Your task to perform on an android device: open a bookmark in the chrome app Image 0: 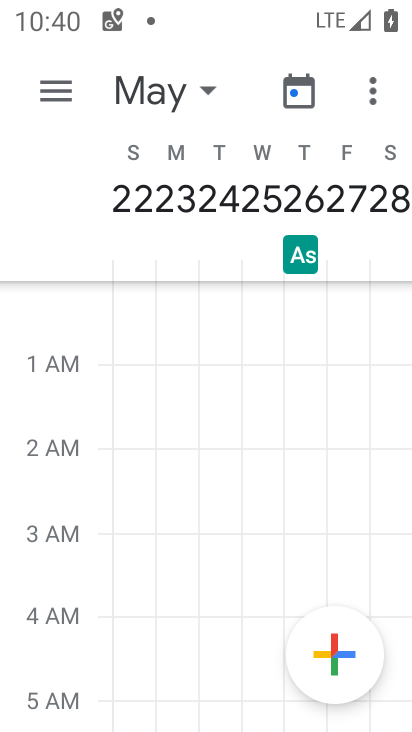
Step 0: press home button
Your task to perform on an android device: open a bookmark in the chrome app Image 1: 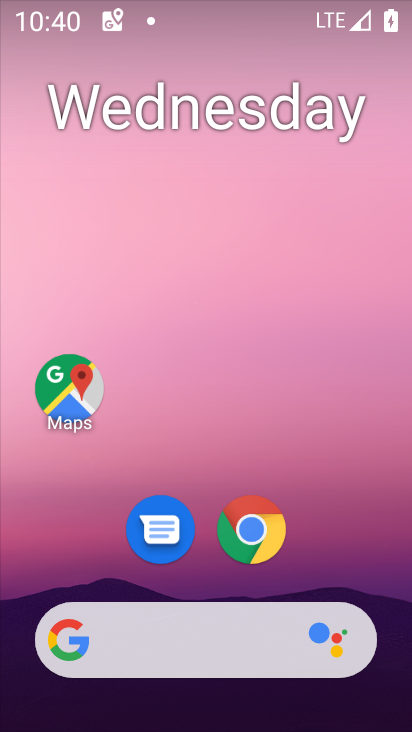
Step 1: click (257, 529)
Your task to perform on an android device: open a bookmark in the chrome app Image 2: 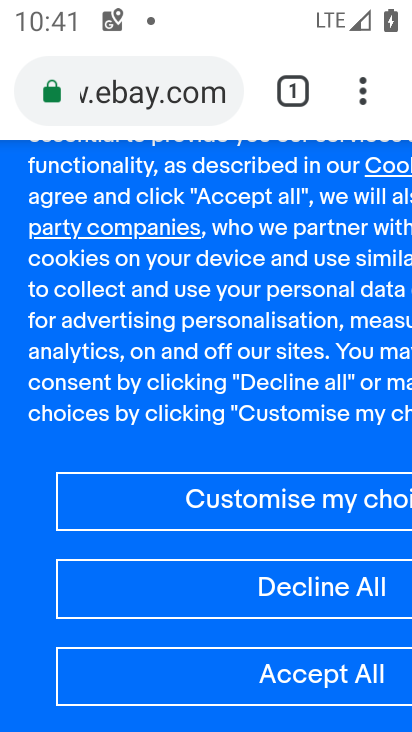
Step 2: click (363, 94)
Your task to perform on an android device: open a bookmark in the chrome app Image 3: 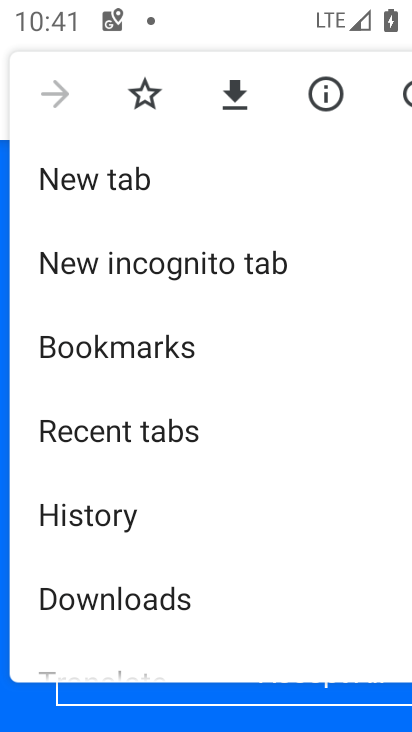
Step 3: click (111, 350)
Your task to perform on an android device: open a bookmark in the chrome app Image 4: 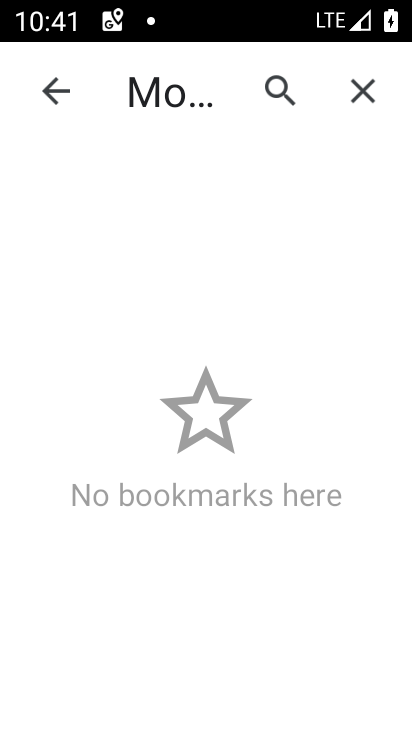
Step 4: task complete